Your task to perform on an android device: Show me popular videos on Youtube Image 0: 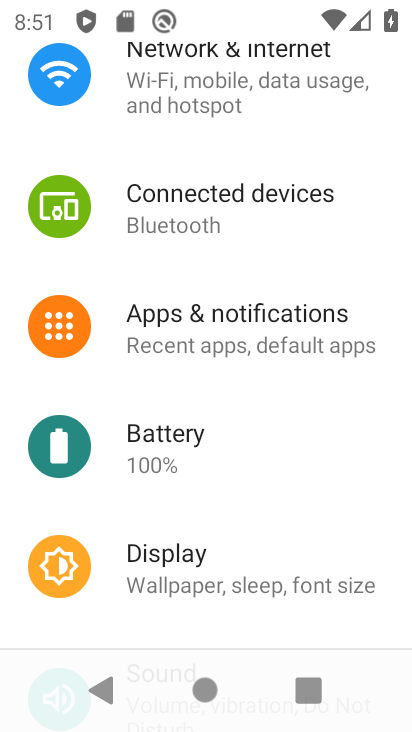
Step 0: press home button
Your task to perform on an android device: Show me popular videos on Youtube Image 1: 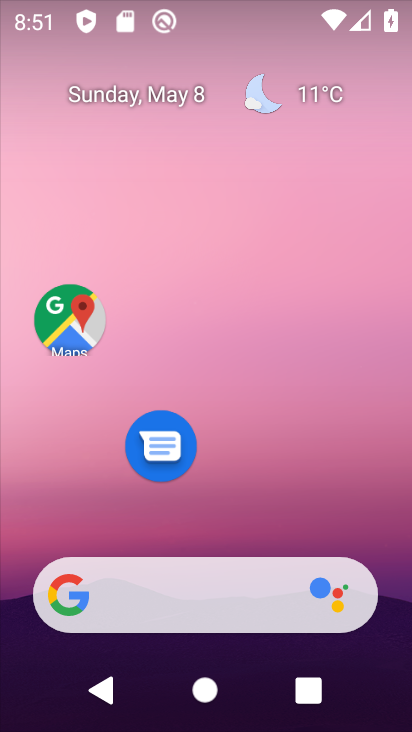
Step 1: drag from (312, 465) to (290, 1)
Your task to perform on an android device: Show me popular videos on Youtube Image 2: 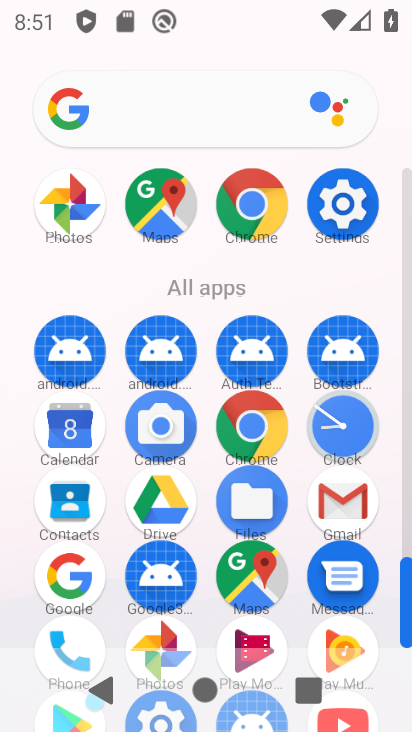
Step 2: drag from (405, 619) to (401, 730)
Your task to perform on an android device: Show me popular videos on Youtube Image 3: 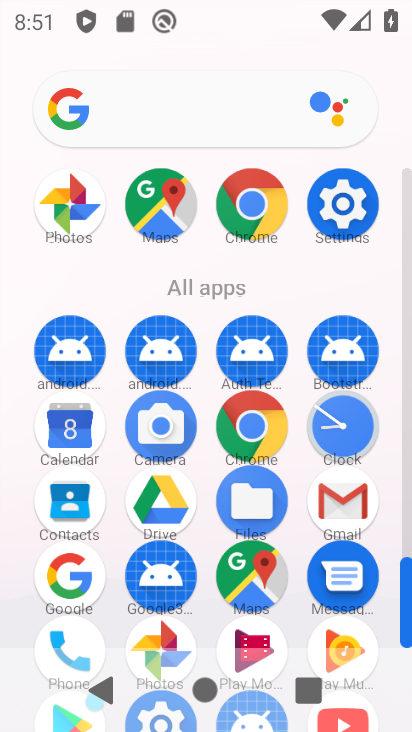
Step 3: drag from (389, 657) to (354, 173)
Your task to perform on an android device: Show me popular videos on Youtube Image 4: 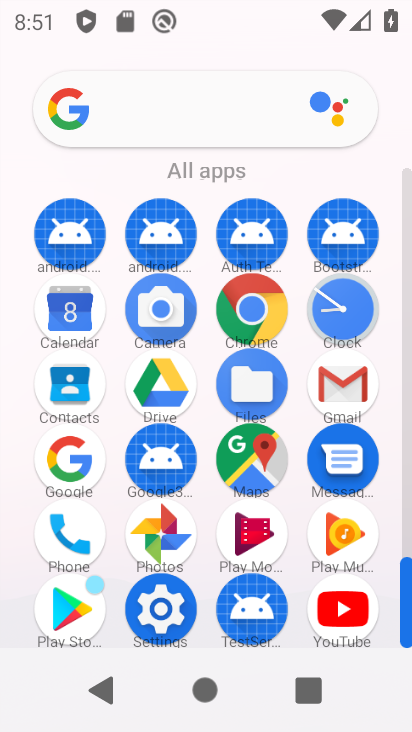
Step 4: click (350, 601)
Your task to perform on an android device: Show me popular videos on Youtube Image 5: 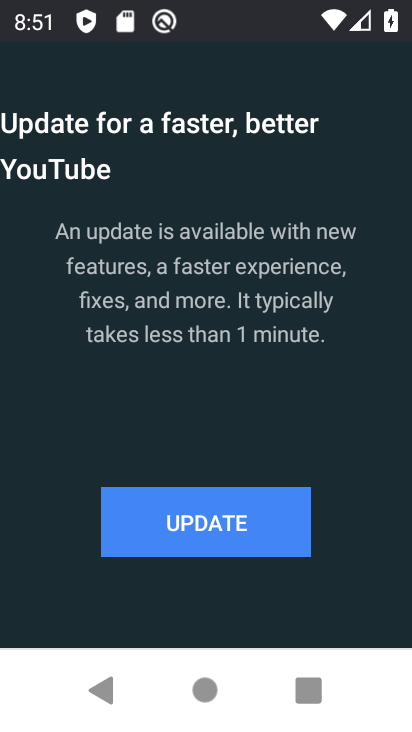
Step 5: click (206, 535)
Your task to perform on an android device: Show me popular videos on Youtube Image 6: 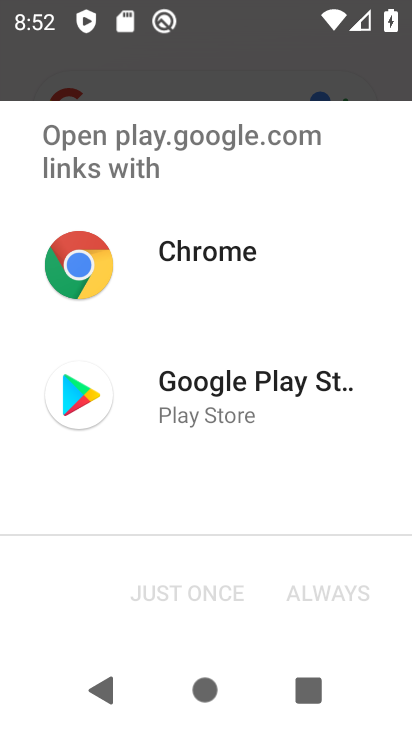
Step 6: click (187, 396)
Your task to perform on an android device: Show me popular videos on Youtube Image 7: 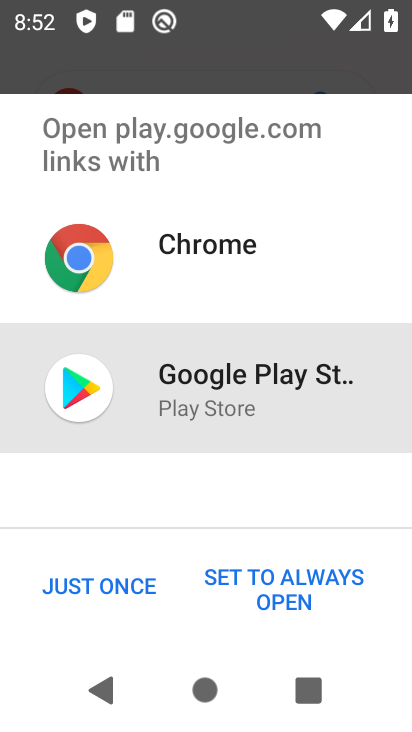
Step 7: click (95, 591)
Your task to perform on an android device: Show me popular videos on Youtube Image 8: 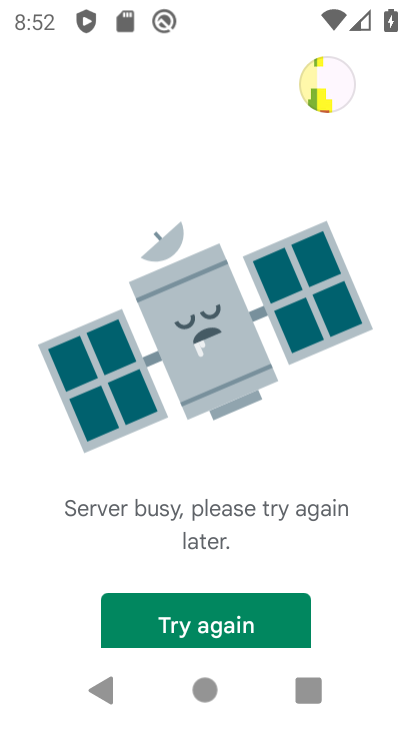
Step 8: click (221, 623)
Your task to perform on an android device: Show me popular videos on Youtube Image 9: 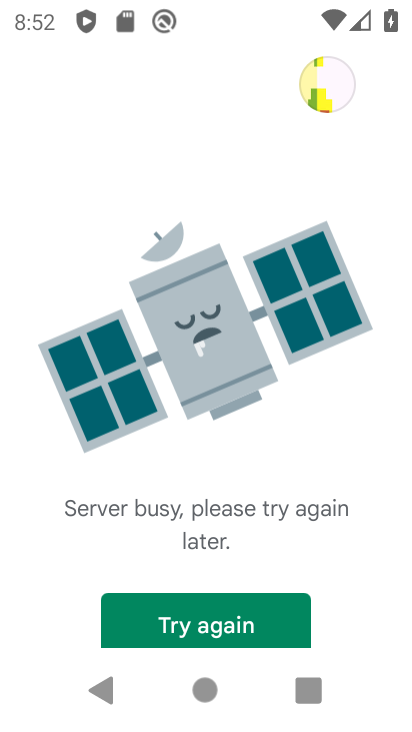
Step 9: task complete